Your task to perform on an android device: Check the news Image 0: 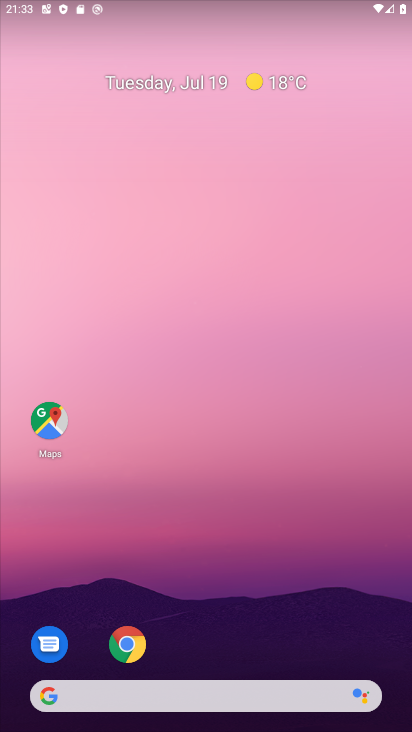
Step 0: drag from (6, 240) to (310, 244)
Your task to perform on an android device: Check the news Image 1: 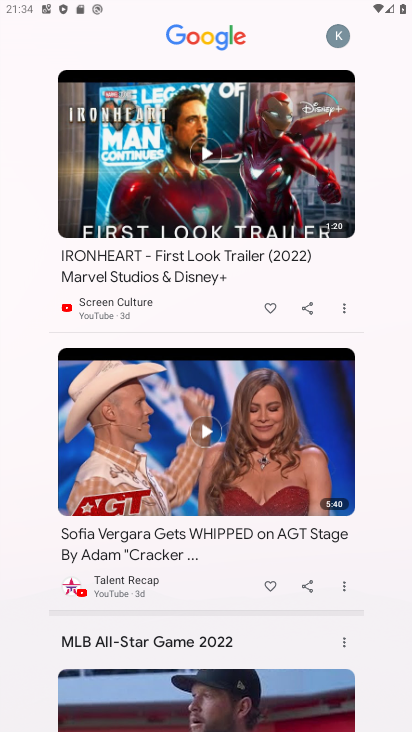
Step 1: task complete